Your task to perform on an android device: What's on my calendar today? Image 0: 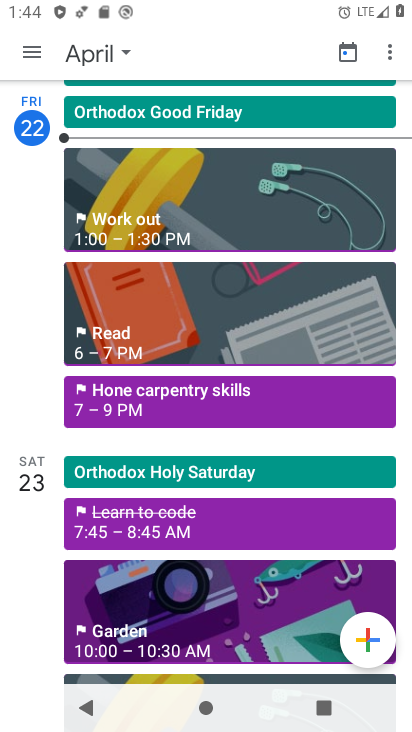
Step 0: press home button
Your task to perform on an android device: What's on my calendar today? Image 1: 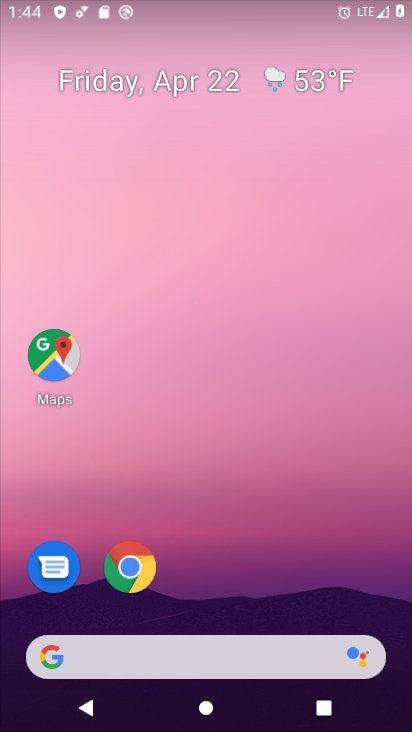
Step 1: drag from (372, 593) to (291, 142)
Your task to perform on an android device: What's on my calendar today? Image 2: 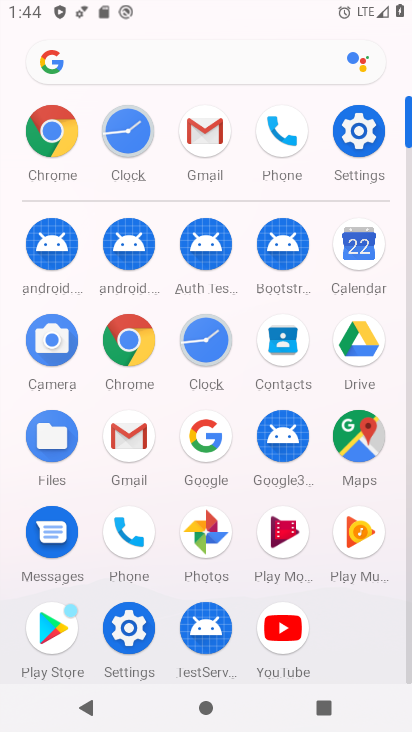
Step 2: click (355, 242)
Your task to perform on an android device: What's on my calendar today? Image 3: 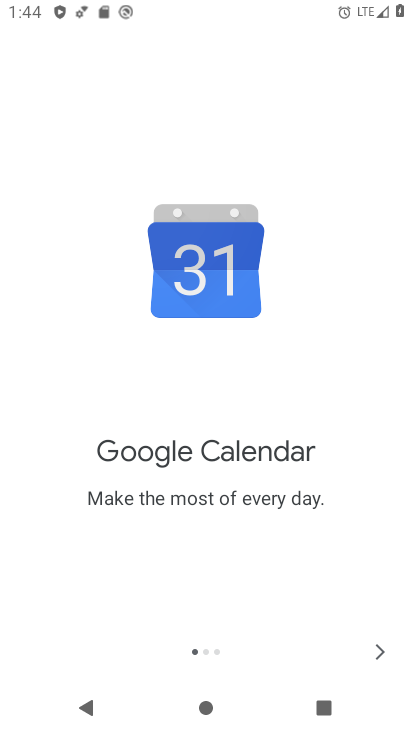
Step 3: click (378, 649)
Your task to perform on an android device: What's on my calendar today? Image 4: 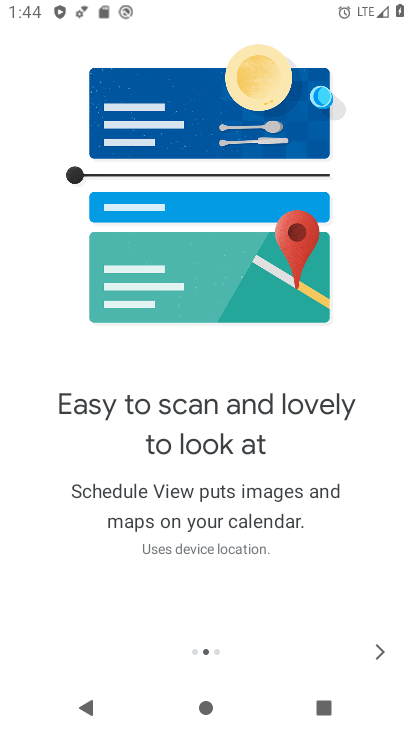
Step 4: click (378, 649)
Your task to perform on an android device: What's on my calendar today? Image 5: 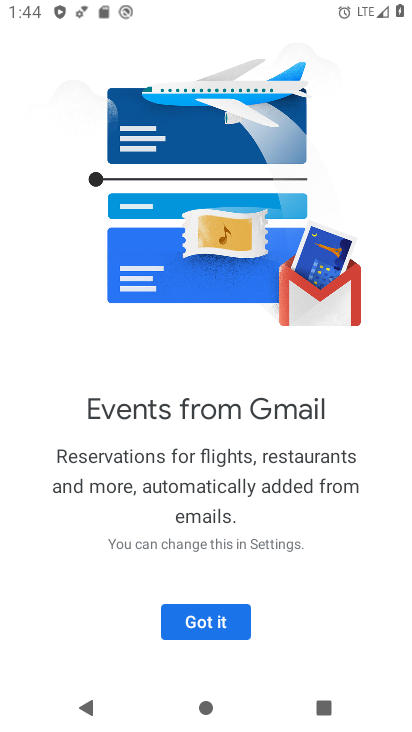
Step 5: click (209, 628)
Your task to perform on an android device: What's on my calendar today? Image 6: 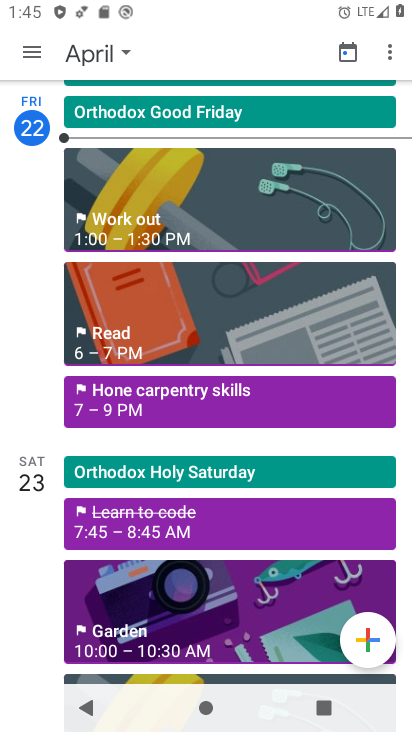
Step 6: click (38, 48)
Your task to perform on an android device: What's on my calendar today? Image 7: 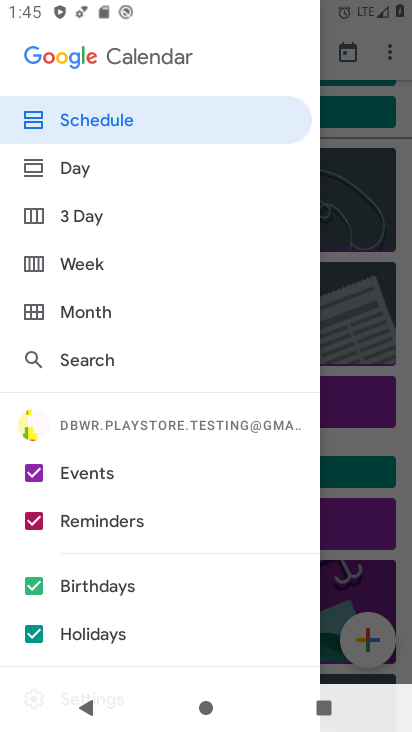
Step 7: click (67, 164)
Your task to perform on an android device: What's on my calendar today? Image 8: 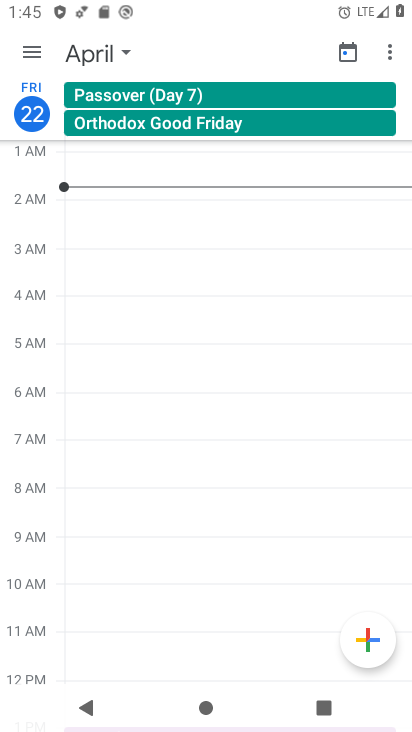
Step 8: task complete